Your task to perform on an android device: Go to Google maps Image 0: 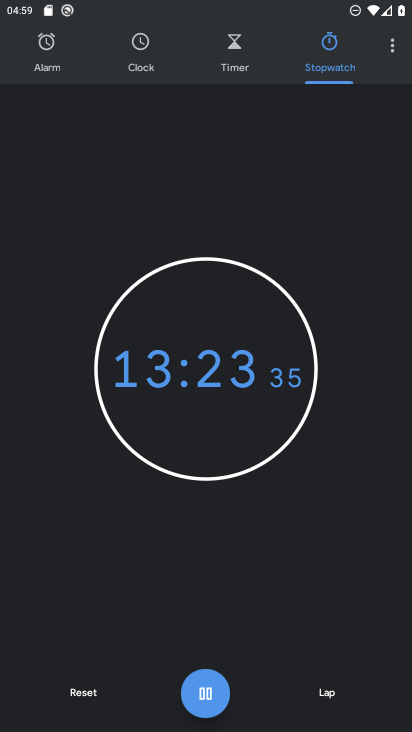
Step 0: press home button
Your task to perform on an android device: Go to Google maps Image 1: 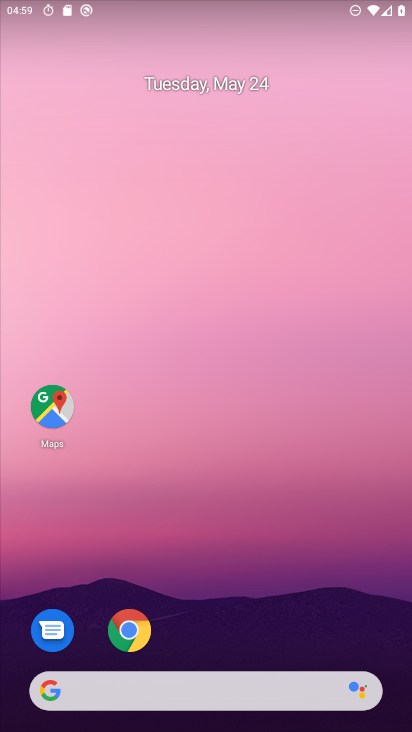
Step 1: click (129, 637)
Your task to perform on an android device: Go to Google maps Image 2: 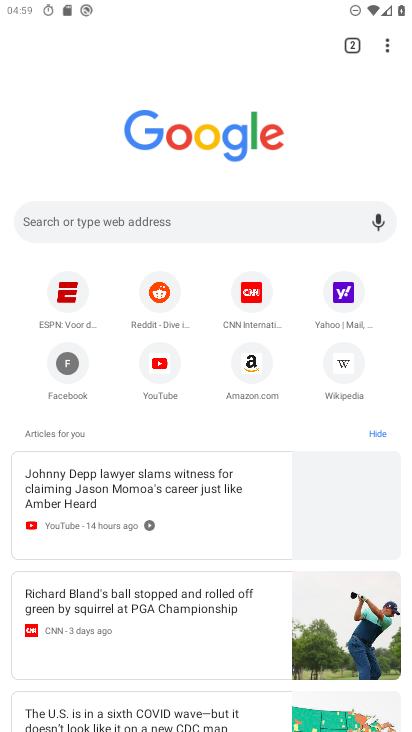
Step 2: press home button
Your task to perform on an android device: Go to Google maps Image 3: 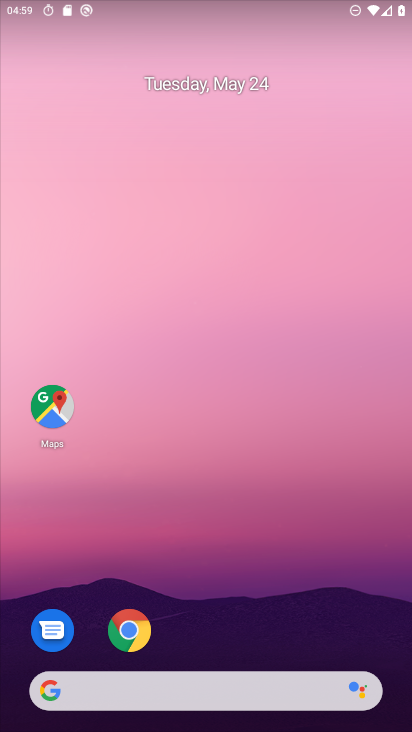
Step 3: click (57, 405)
Your task to perform on an android device: Go to Google maps Image 4: 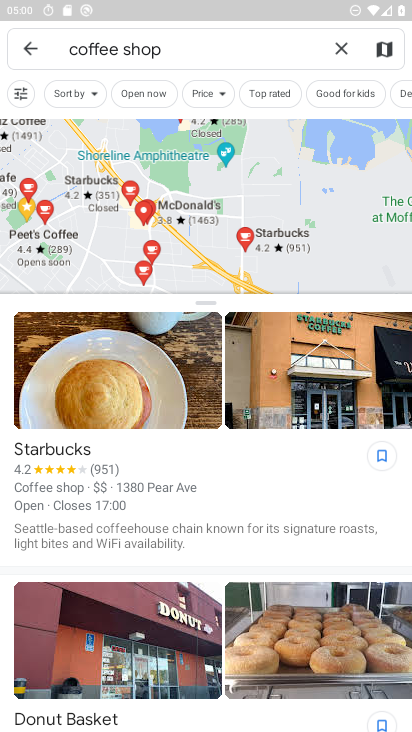
Step 4: task complete